Your task to perform on an android device: clear history in the chrome app Image 0: 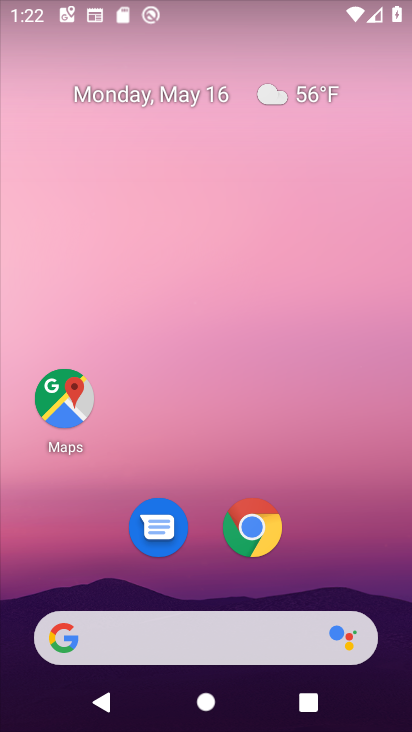
Step 0: click (274, 523)
Your task to perform on an android device: clear history in the chrome app Image 1: 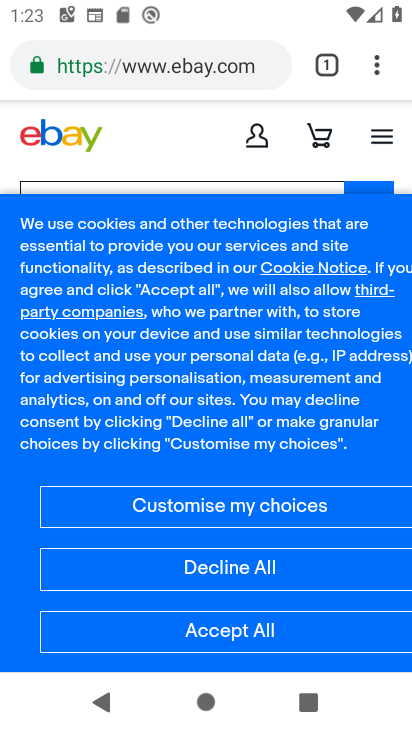
Step 1: drag from (274, 523) to (351, 3)
Your task to perform on an android device: clear history in the chrome app Image 2: 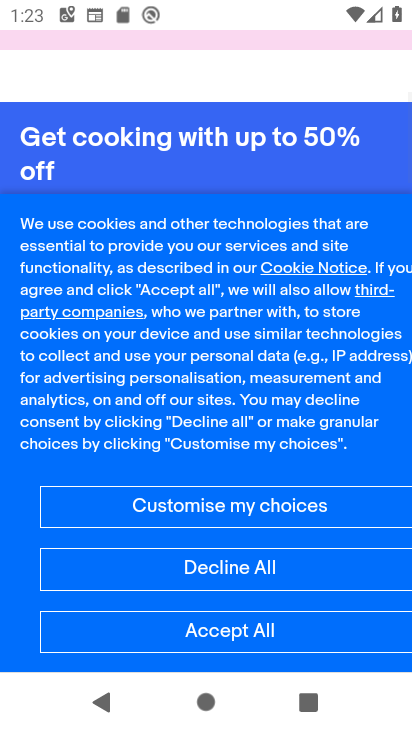
Step 2: drag from (339, 95) to (269, 467)
Your task to perform on an android device: clear history in the chrome app Image 3: 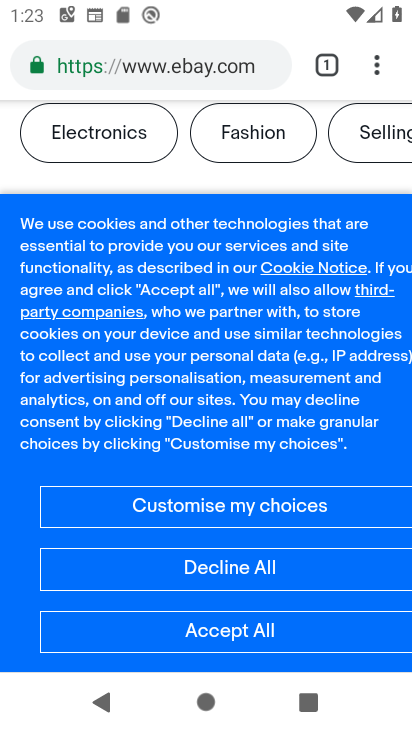
Step 3: drag from (379, 76) to (146, 363)
Your task to perform on an android device: clear history in the chrome app Image 4: 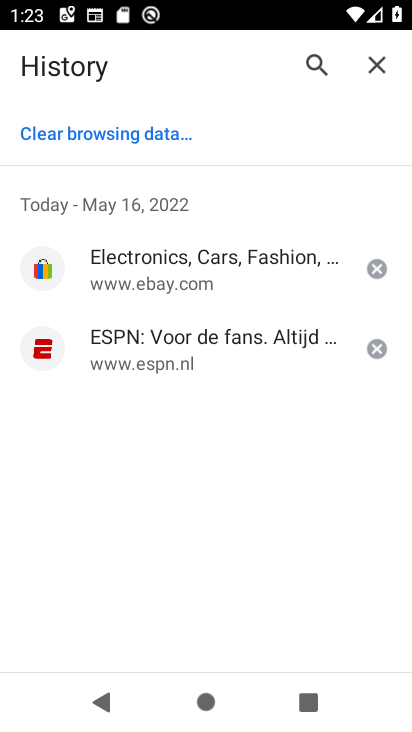
Step 4: click (154, 130)
Your task to perform on an android device: clear history in the chrome app Image 5: 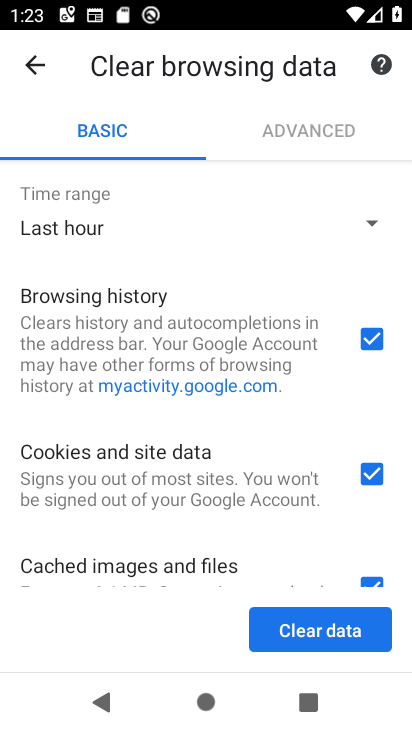
Step 5: click (342, 623)
Your task to perform on an android device: clear history in the chrome app Image 6: 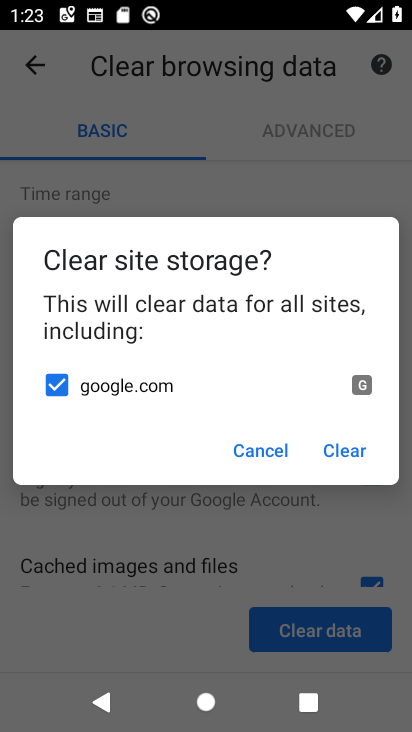
Step 6: click (351, 447)
Your task to perform on an android device: clear history in the chrome app Image 7: 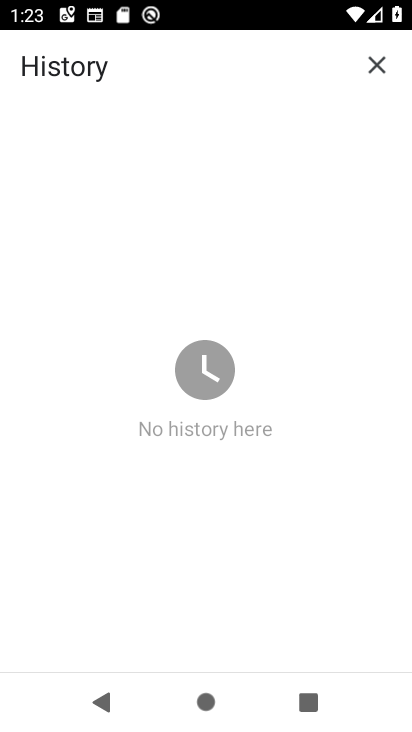
Step 7: task complete